Your task to perform on an android device: Open maps Image 0: 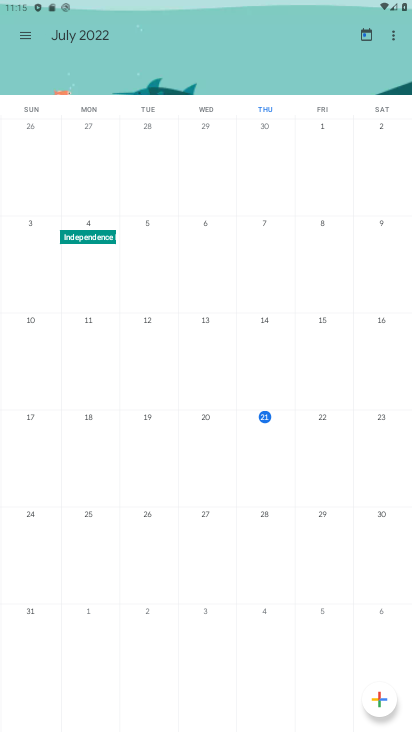
Step 0: press home button
Your task to perform on an android device: Open maps Image 1: 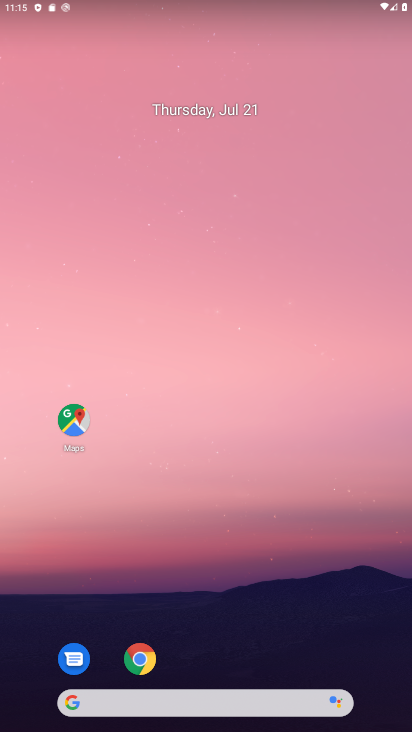
Step 1: click (52, 417)
Your task to perform on an android device: Open maps Image 2: 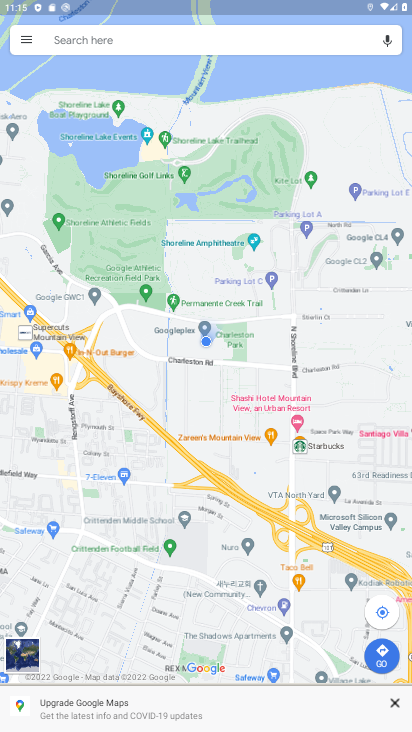
Step 2: task complete